Your task to perform on an android device: turn on notifications settings in the gmail app Image 0: 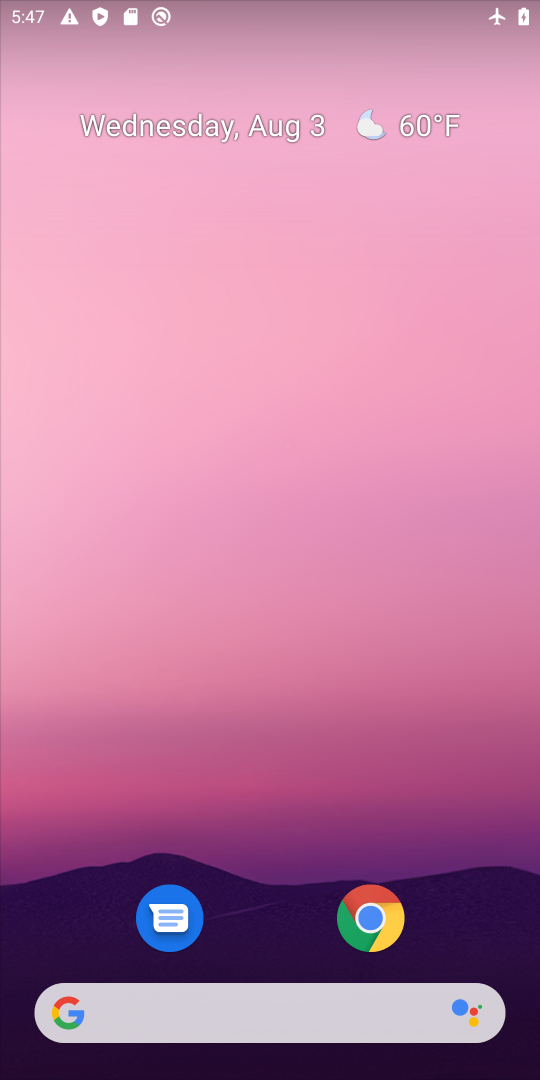
Step 0: drag from (264, 1001) to (163, 438)
Your task to perform on an android device: turn on notifications settings in the gmail app Image 1: 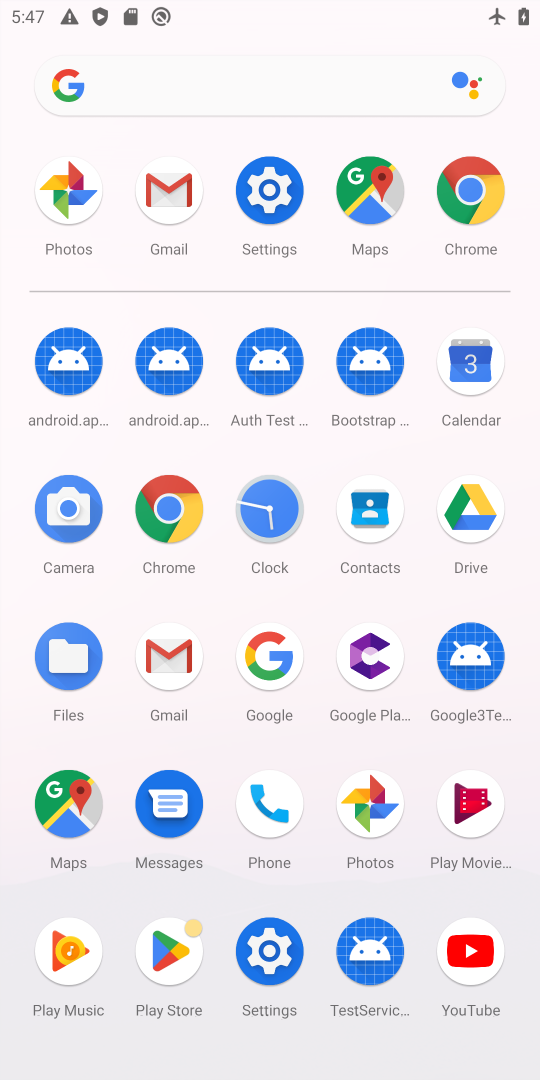
Step 1: click (165, 211)
Your task to perform on an android device: turn on notifications settings in the gmail app Image 2: 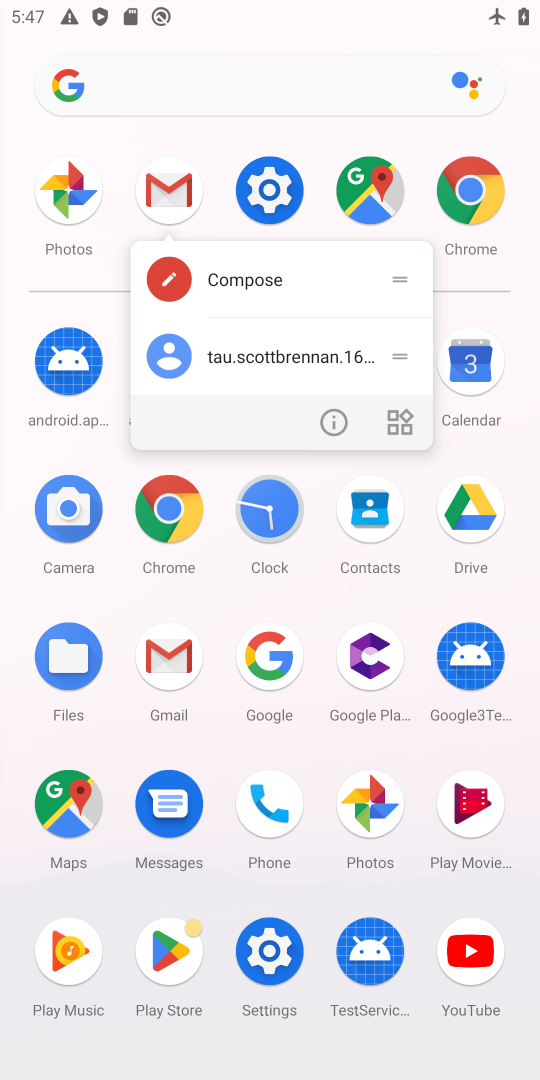
Step 2: click (165, 211)
Your task to perform on an android device: turn on notifications settings in the gmail app Image 3: 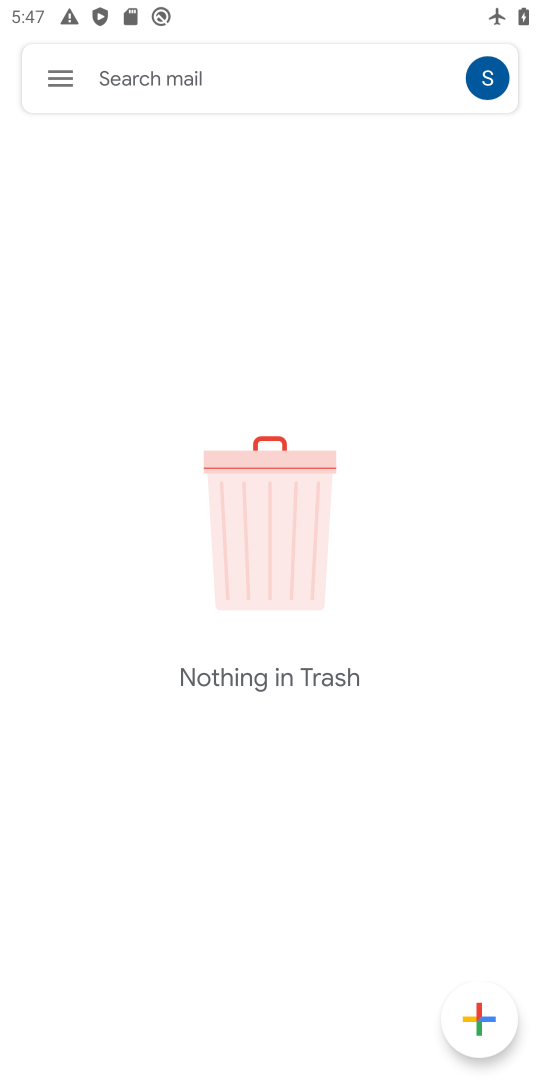
Step 3: click (62, 77)
Your task to perform on an android device: turn on notifications settings in the gmail app Image 4: 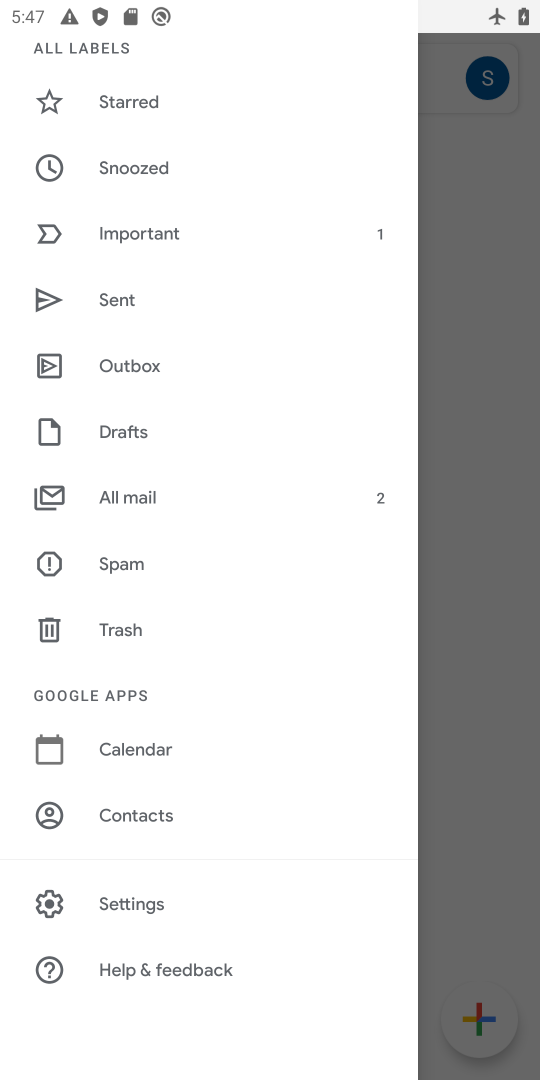
Step 4: click (100, 906)
Your task to perform on an android device: turn on notifications settings in the gmail app Image 5: 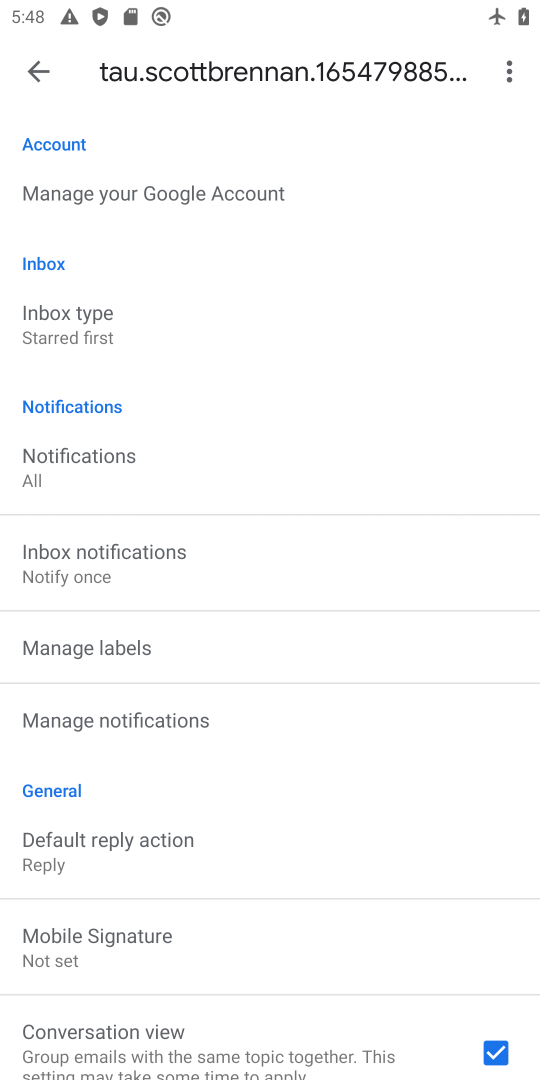
Step 5: click (156, 710)
Your task to perform on an android device: turn on notifications settings in the gmail app Image 6: 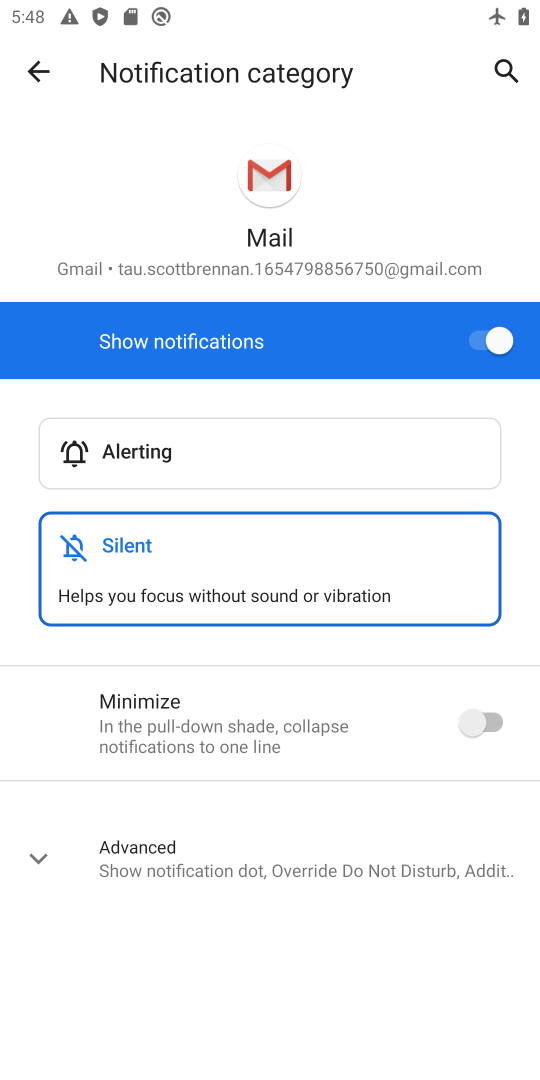
Step 6: task complete